Your task to perform on an android device: Add "acer predator" to the cart on walmart Image 0: 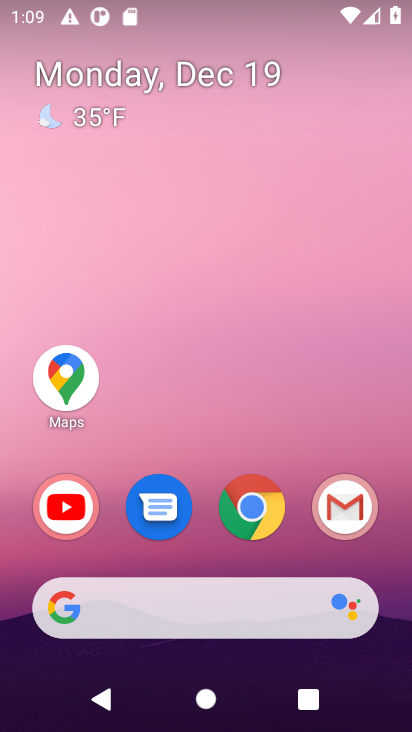
Step 0: click (254, 506)
Your task to perform on an android device: Add "acer predator" to the cart on walmart Image 1: 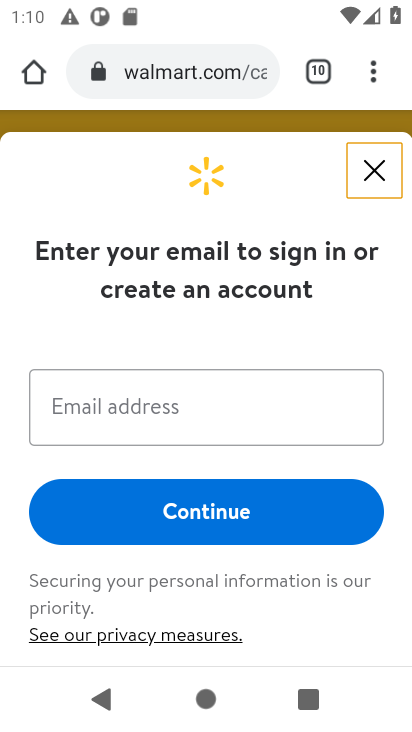
Step 1: click (372, 168)
Your task to perform on an android device: Add "acer predator" to the cart on walmart Image 2: 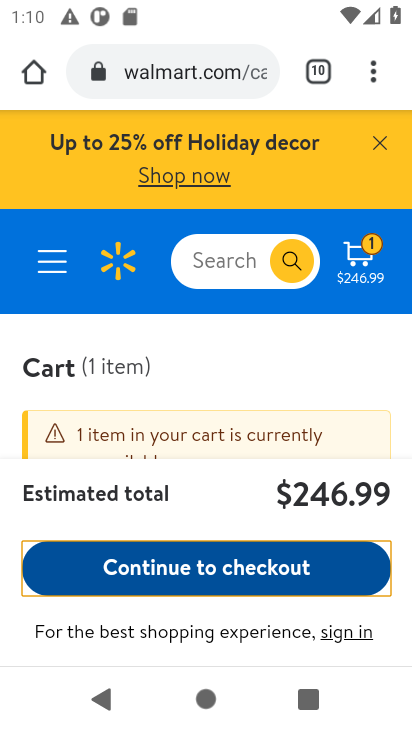
Step 2: click (218, 267)
Your task to perform on an android device: Add "acer predator" to the cart on walmart Image 3: 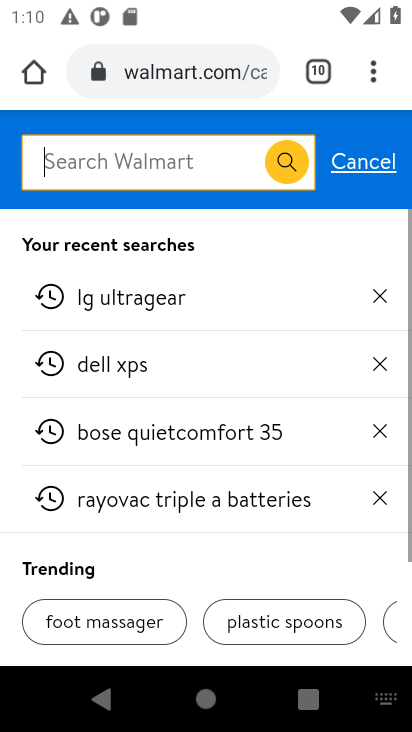
Step 3: type "acer predator"
Your task to perform on an android device: Add "acer predator" to the cart on walmart Image 4: 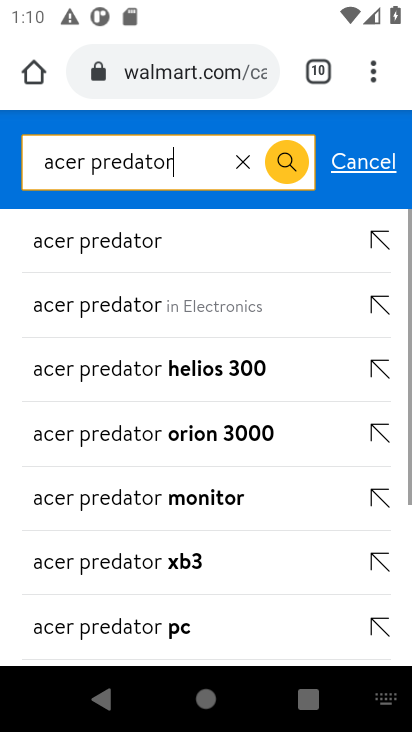
Step 4: click (77, 244)
Your task to perform on an android device: Add "acer predator" to the cart on walmart Image 5: 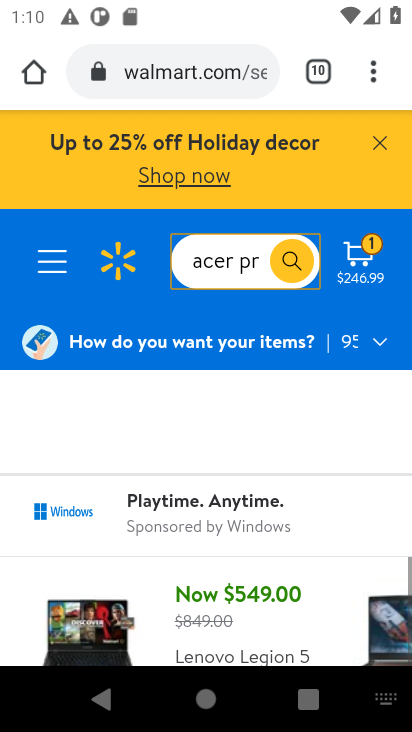
Step 5: drag from (189, 488) to (195, 215)
Your task to perform on an android device: Add "acer predator" to the cart on walmart Image 6: 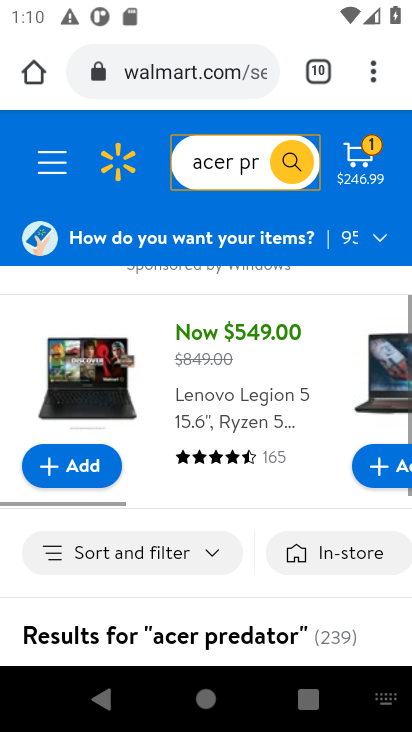
Step 6: drag from (169, 438) to (189, 156)
Your task to perform on an android device: Add "acer predator" to the cart on walmart Image 7: 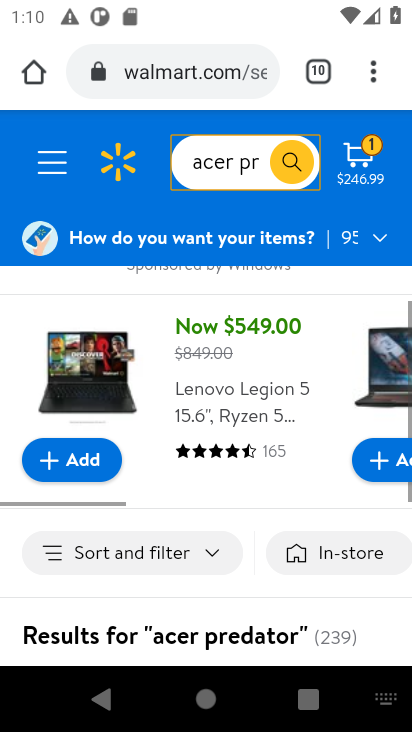
Step 7: drag from (237, 518) to (229, 202)
Your task to perform on an android device: Add "acer predator" to the cart on walmart Image 8: 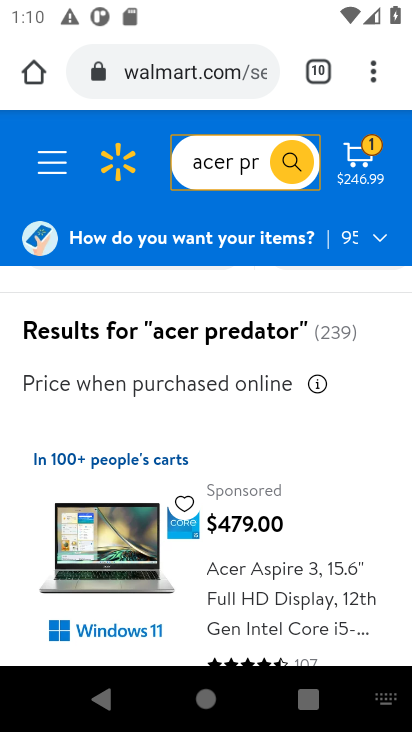
Step 8: drag from (188, 467) to (201, 252)
Your task to perform on an android device: Add "acer predator" to the cart on walmart Image 9: 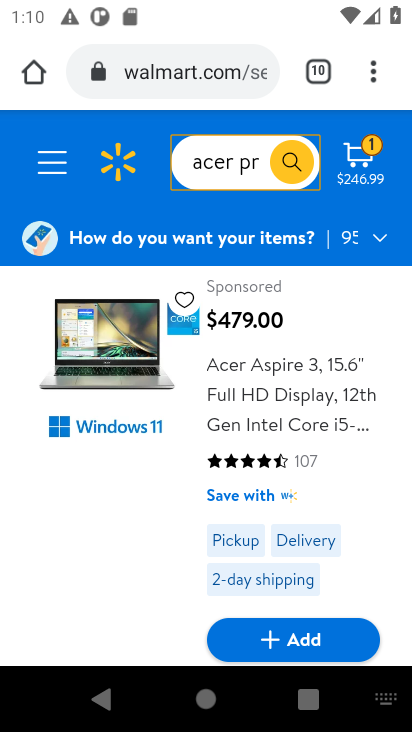
Step 9: drag from (169, 482) to (194, 243)
Your task to perform on an android device: Add "acer predator" to the cart on walmart Image 10: 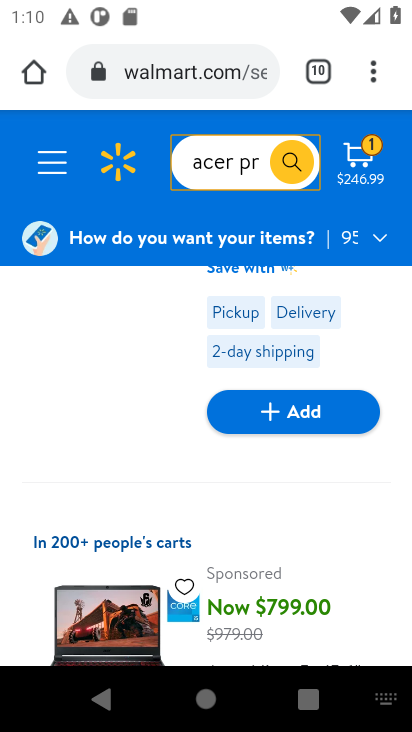
Step 10: drag from (162, 498) to (162, 215)
Your task to perform on an android device: Add "acer predator" to the cart on walmart Image 11: 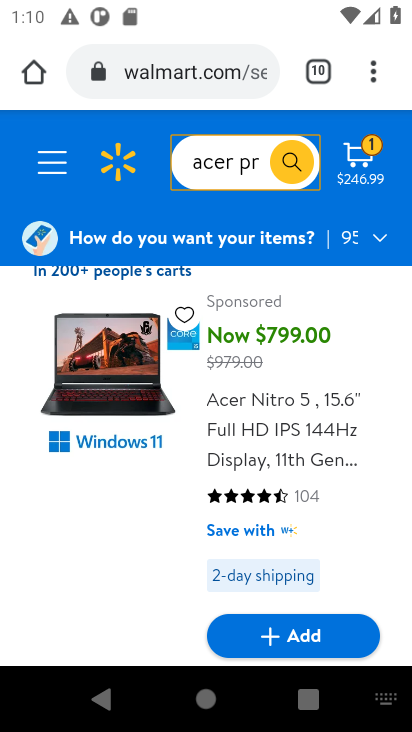
Step 11: drag from (117, 466) to (125, 179)
Your task to perform on an android device: Add "acer predator" to the cart on walmart Image 12: 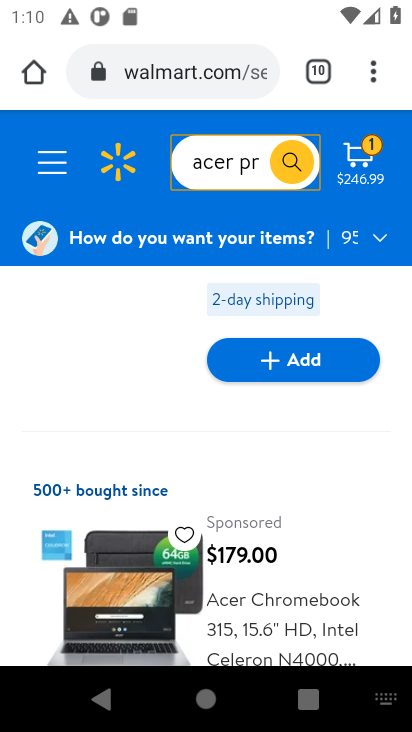
Step 12: drag from (110, 446) to (118, 176)
Your task to perform on an android device: Add "acer predator" to the cart on walmart Image 13: 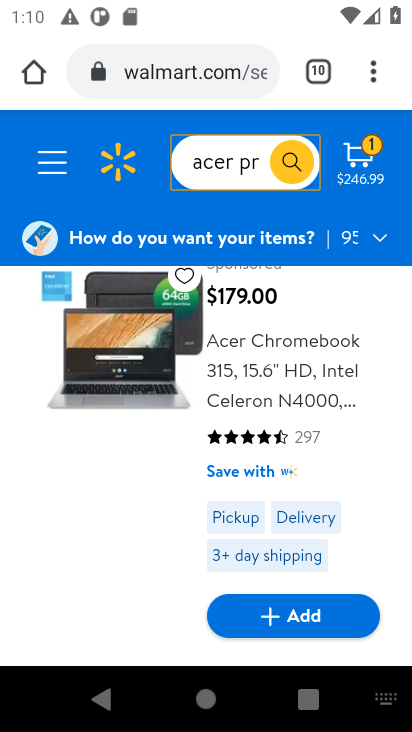
Step 13: drag from (128, 458) to (132, 163)
Your task to perform on an android device: Add "acer predator" to the cart on walmart Image 14: 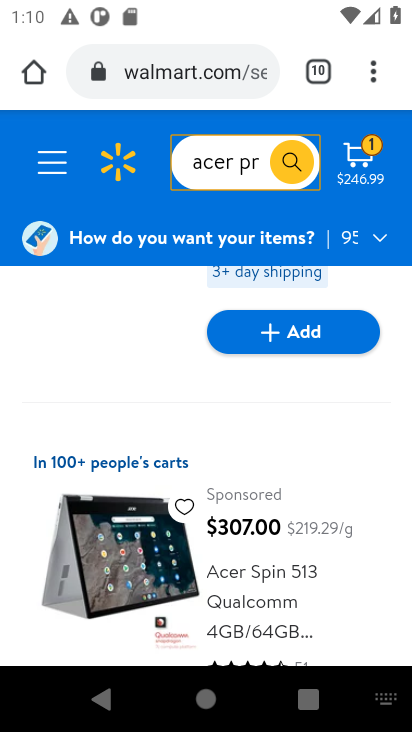
Step 14: drag from (114, 445) to (108, 154)
Your task to perform on an android device: Add "acer predator" to the cart on walmart Image 15: 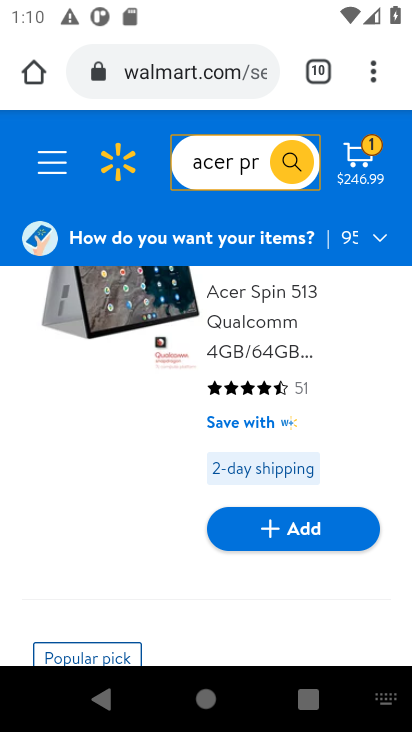
Step 15: drag from (89, 357) to (95, 198)
Your task to perform on an android device: Add "acer predator" to the cart on walmart Image 16: 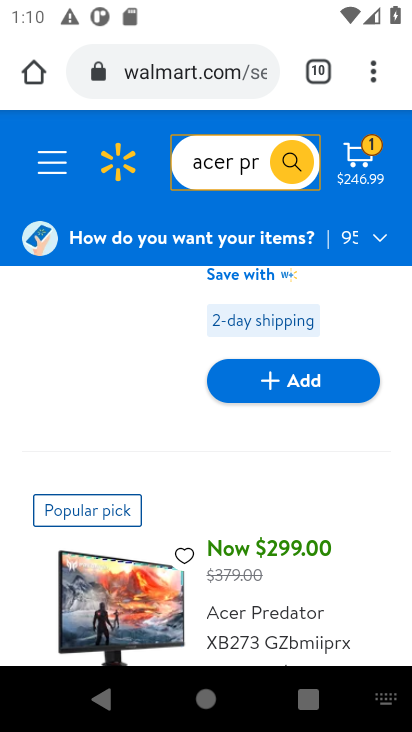
Step 16: drag from (98, 445) to (117, 163)
Your task to perform on an android device: Add "acer predator" to the cart on walmart Image 17: 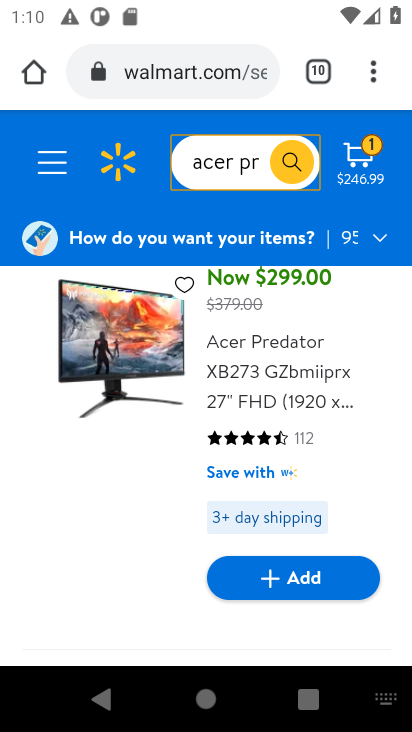
Step 17: click (300, 571)
Your task to perform on an android device: Add "acer predator" to the cart on walmart Image 18: 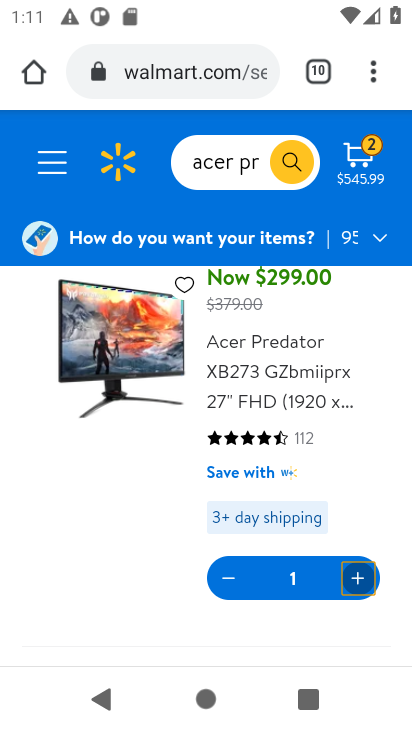
Step 18: task complete